Your task to perform on an android device: change your default location settings in chrome Image 0: 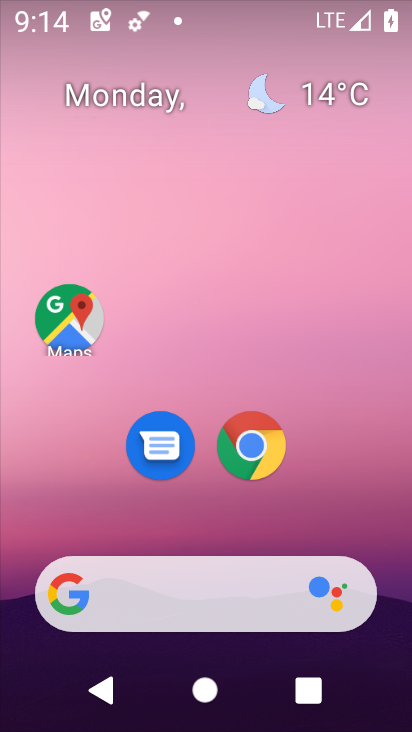
Step 0: click (249, 439)
Your task to perform on an android device: change your default location settings in chrome Image 1: 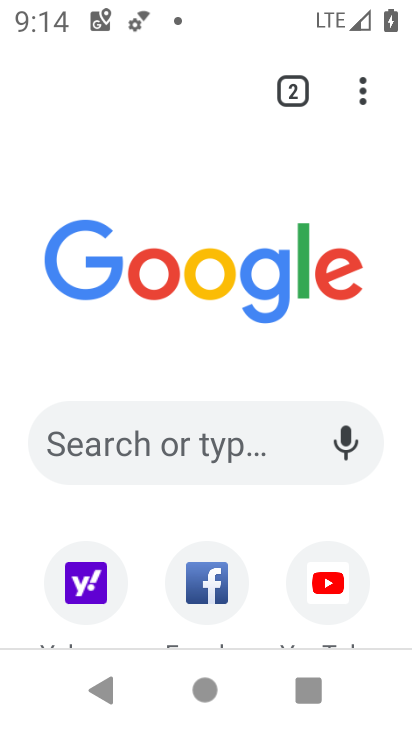
Step 1: click (364, 87)
Your task to perform on an android device: change your default location settings in chrome Image 2: 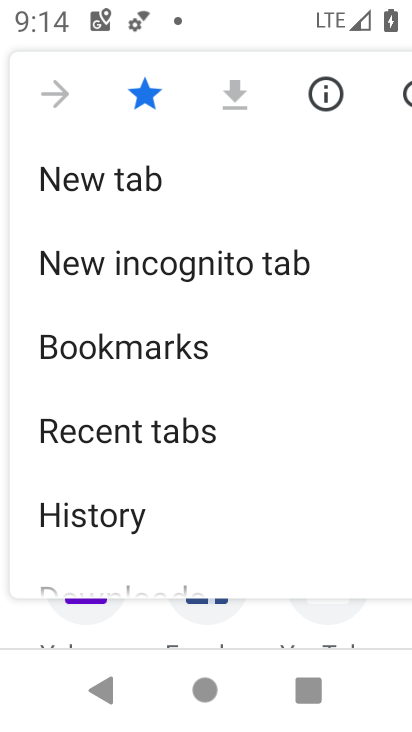
Step 2: drag from (198, 539) to (224, 58)
Your task to perform on an android device: change your default location settings in chrome Image 3: 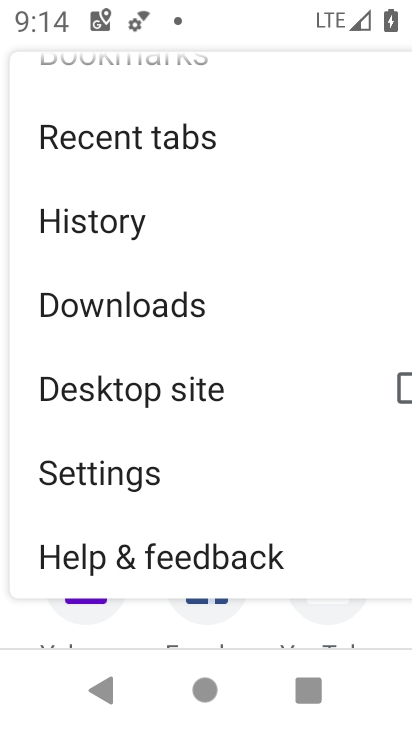
Step 3: click (180, 475)
Your task to perform on an android device: change your default location settings in chrome Image 4: 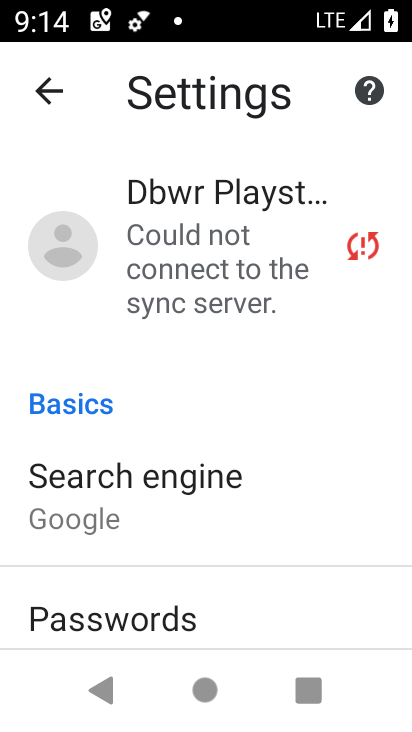
Step 4: drag from (251, 614) to (269, 67)
Your task to perform on an android device: change your default location settings in chrome Image 5: 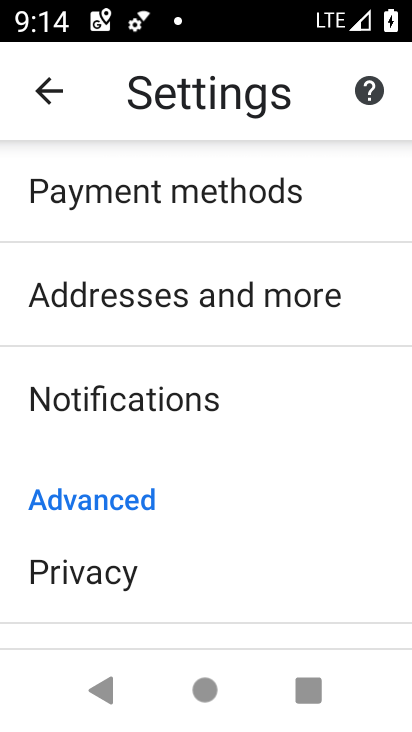
Step 5: drag from (209, 599) to (216, 142)
Your task to perform on an android device: change your default location settings in chrome Image 6: 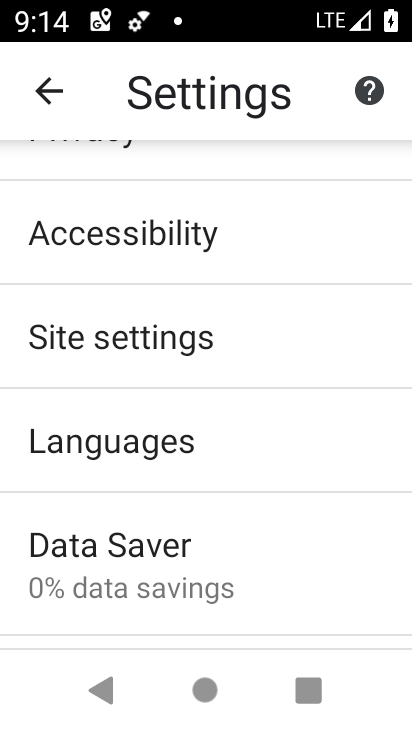
Step 6: click (225, 341)
Your task to perform on an android device: change your default location settings in chrome Image 7: 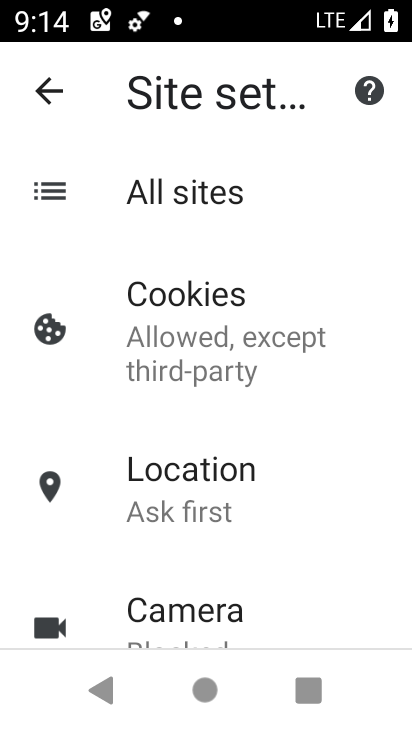
Step 7: click (247, 490)
Your task to perform on an android device: change your default location settings in chrome Image 8: 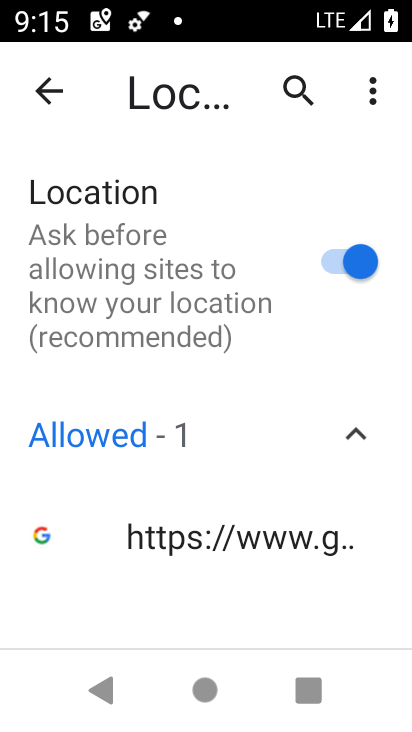
Step 8: task complete